Your task to perform on an android device: change the clock display to show seconds Image 0: 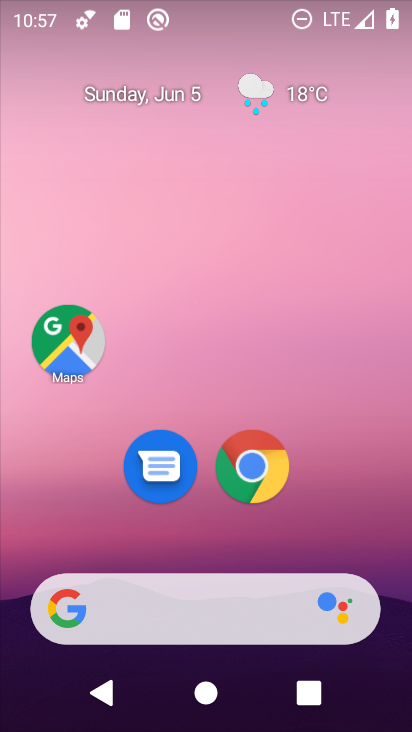
Step 0: drag from (337, 426) to (258, 51)
Your task to perform on an android device: change the clock display to show seconds Image 1: 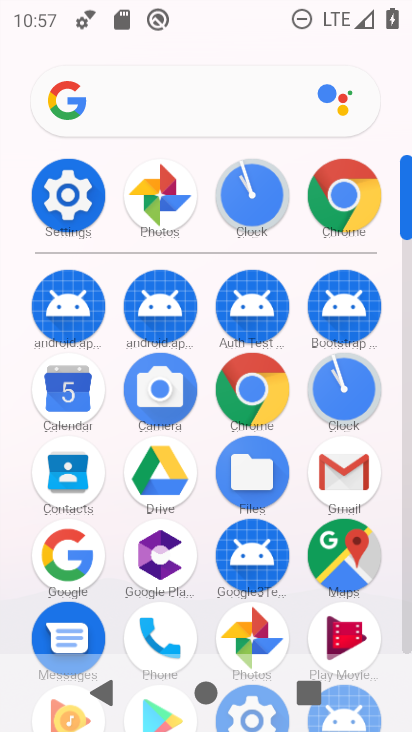
Step 1: drag from (10, 543) to (8, 301)
Your task to perform on an android device: change the clock display to show seconds Image 2: 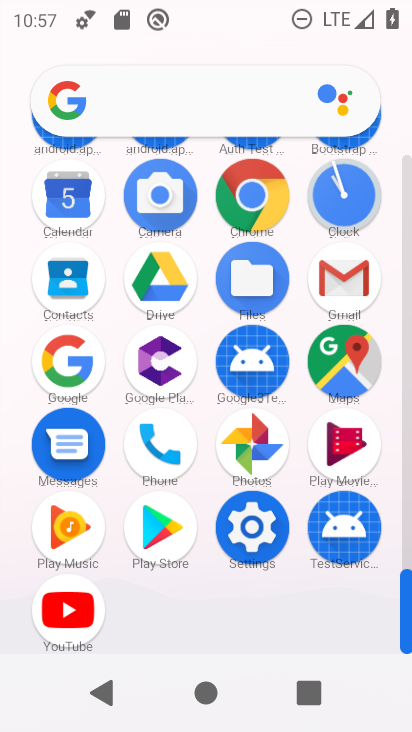
Step 2: click (344, 186)
Your task to perform on an android device: change the clock display to show seconds Image 3: 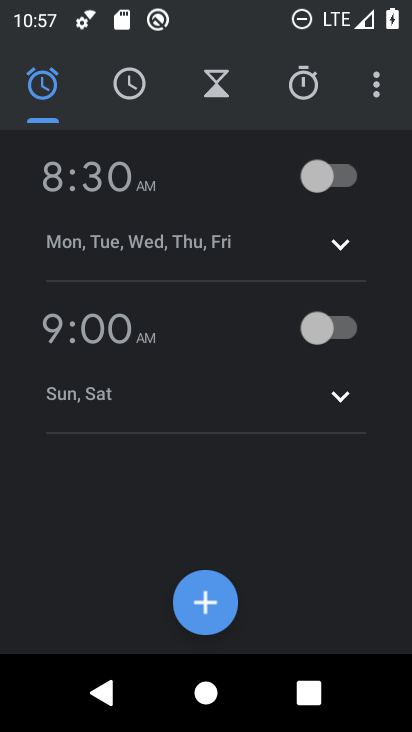
Step 3: drag from (379, 89) to (255, 181)
Your task to perform on an android device: change the clock display to show seconds Image 4: 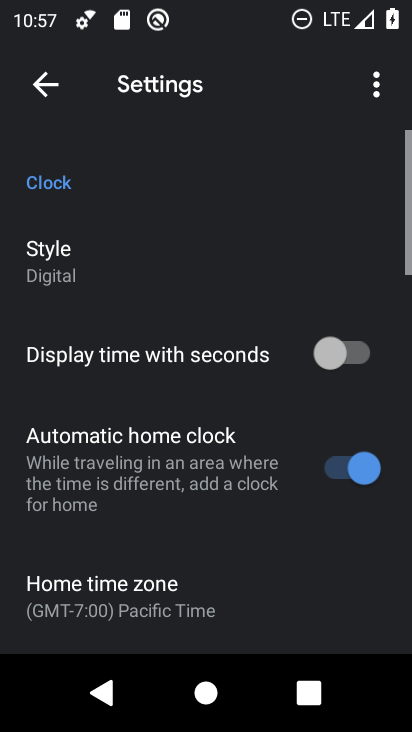
Step 4: click (343, 344)
Your task to perform on an android device: change the clock display to show seconds Image 5: 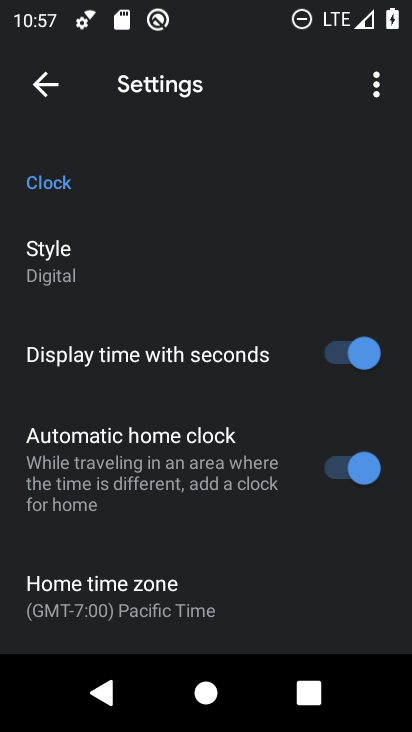
Step 5: task complete